Your task to perform on an android device: toggle improve location accuracy Image 0: 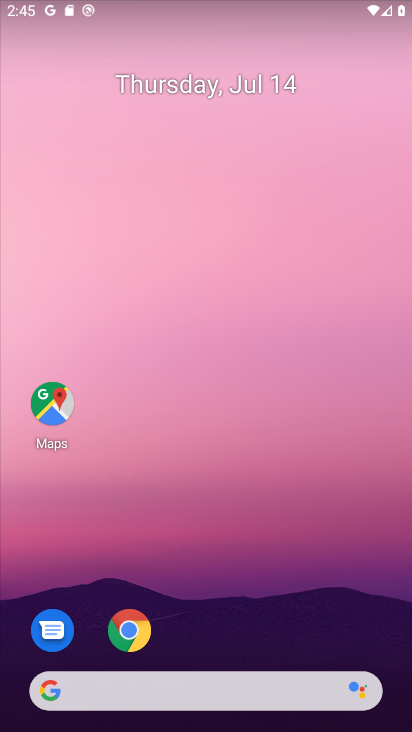
Step 0: drag from (227, 471) to (220, 256)
Your task to perform on an android device: toggle improve location accuracy Image 1: 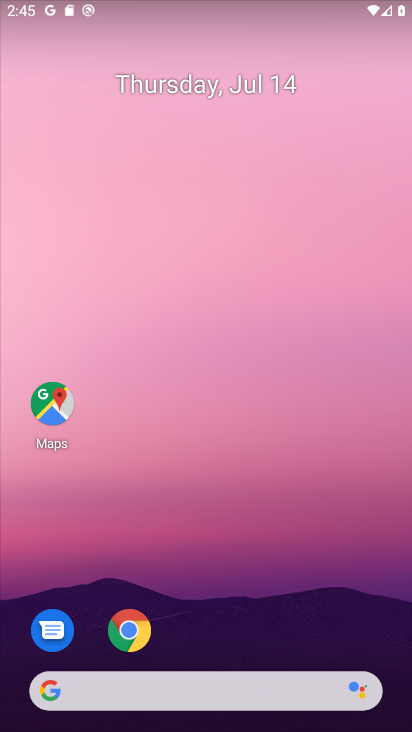
Step 1: drag from (244, 716) to (185, 203)
Your task to perform on an android device: toggle improve location accuracy Image 2: 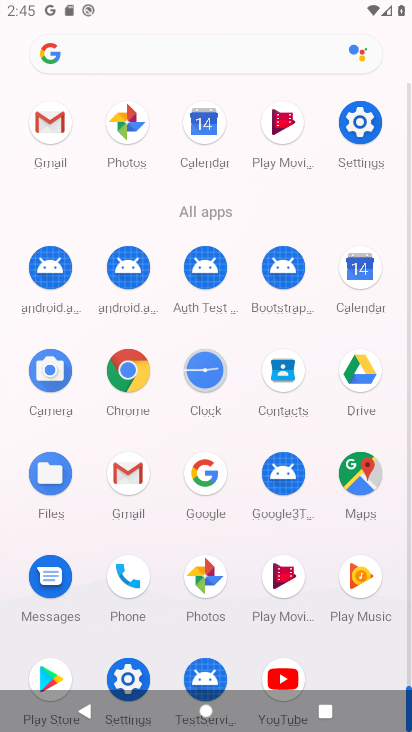
Step 2: drag from (246, 558) to (231, 253)
Your task to perform on an android device: toggle improve location accuracy Image 3: 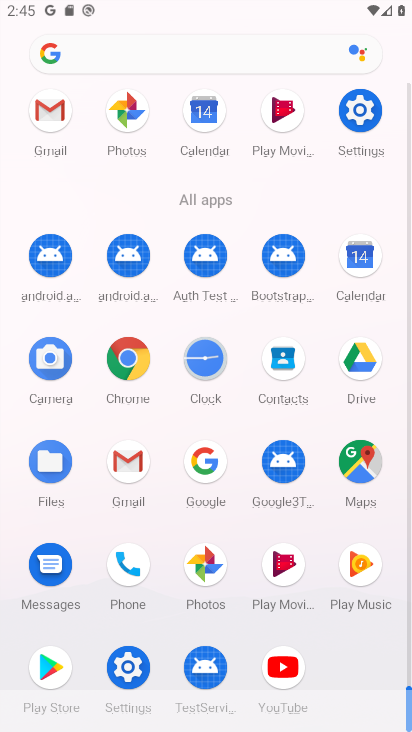
Step 3: click (369, 108)
Your task to perform on an android device: toggle improve location accuracy Image 4: 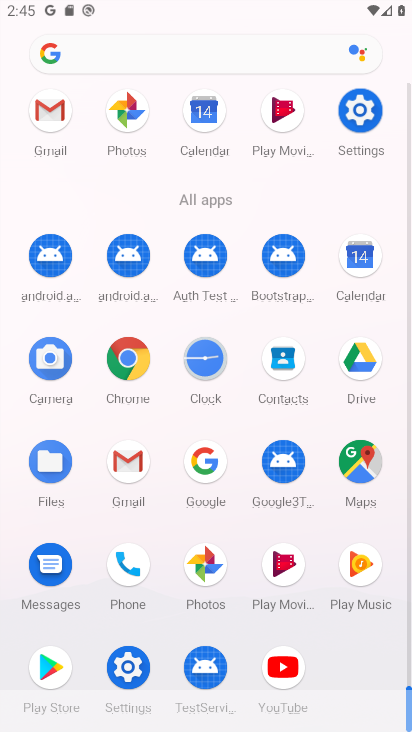
Step 4: click (369, 108)
Your task to perform on an android device: toggle improve location accuracy Image 5: 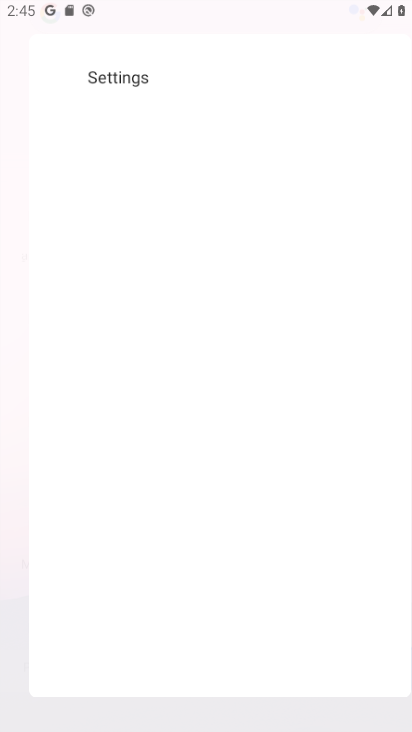
Step 5: click (368, 111)
Your task to perform on an android device: toggle improve location accuracy Image 6: 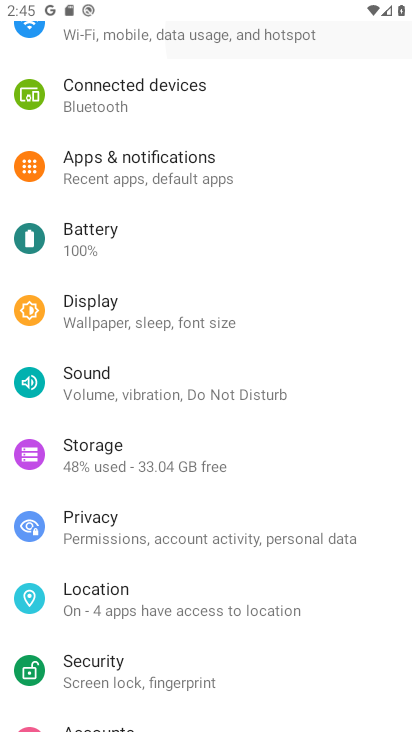
Step 6: click (359, 112)
Your task to perform on an android device: toggle improve location accuracy Image 7: 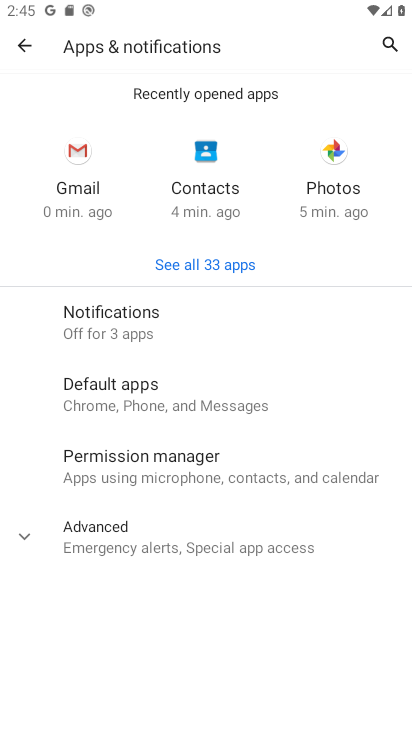
Step 7: click (26, 40)
Your task to perform on an android device: toggle improve location accuracy Image 8: 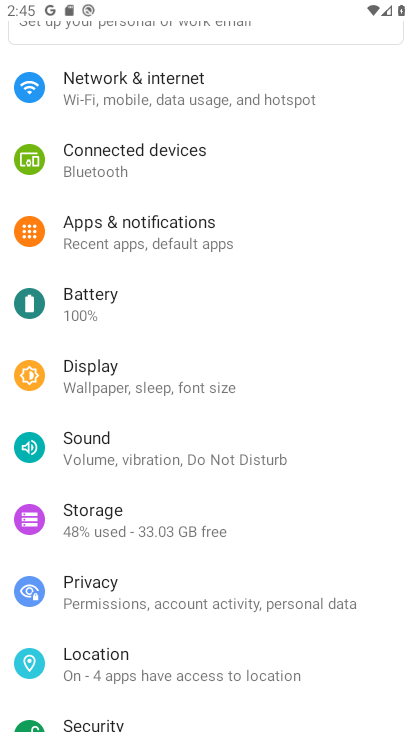
Step 8: click (144, 221)
Your task to perform on an android device: toggle improve location accuracy Image 9: 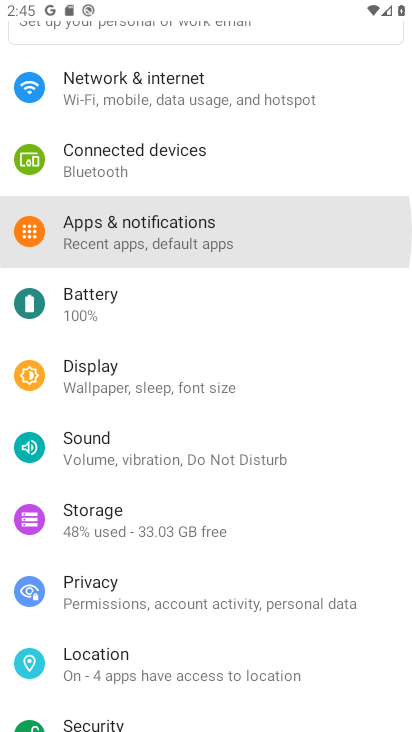
Step 9: click (144, 221)
Your task to perform on an android device: toggle improve location accuracy Image 10: 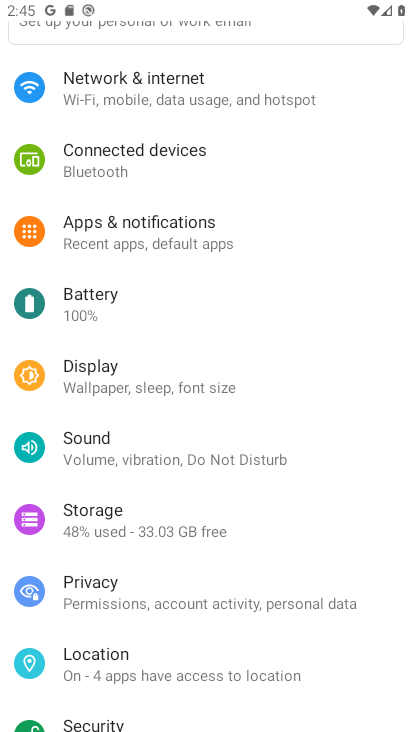
Step 10: click (145, 222)
Your task to perform on an android device: toggle improve location accuracy Image 11: 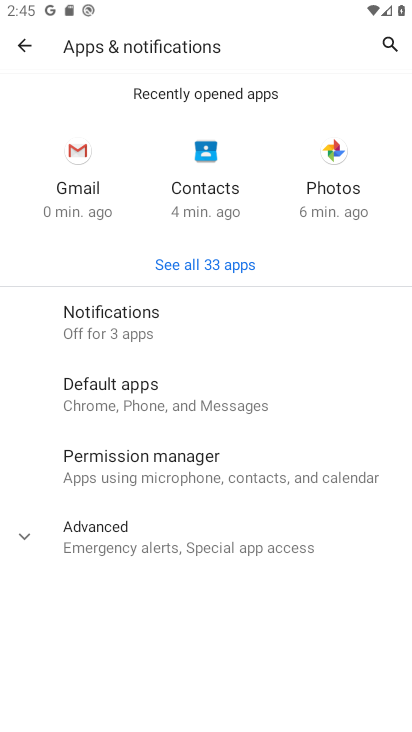
Step 11: click (15, 32)
Your task to perform on an android device: toggle improve location accuracy Image 12: 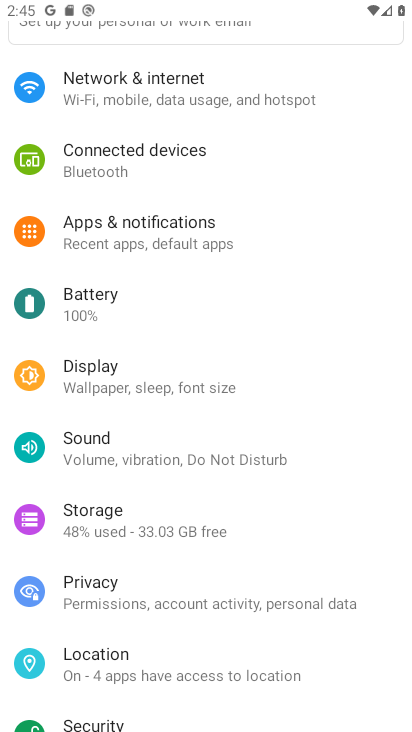
Step 12: click (106, 663)
Your task to perform on an android device: toggle improve location accuracy Image 13: 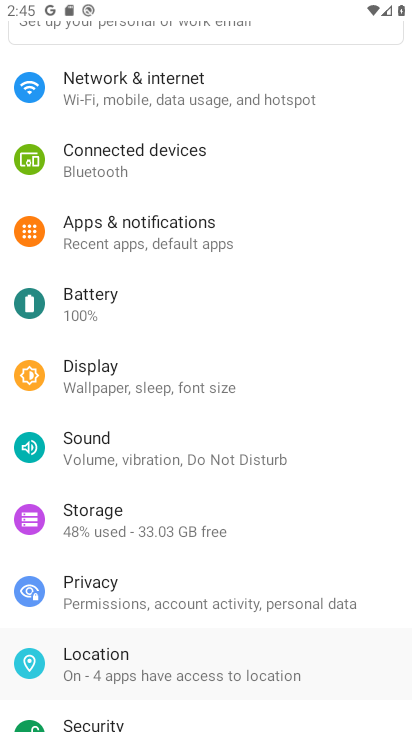
Step 13: click (106, 663)
Your task to perform on an android device: toggle improve location accuracy Image 14: 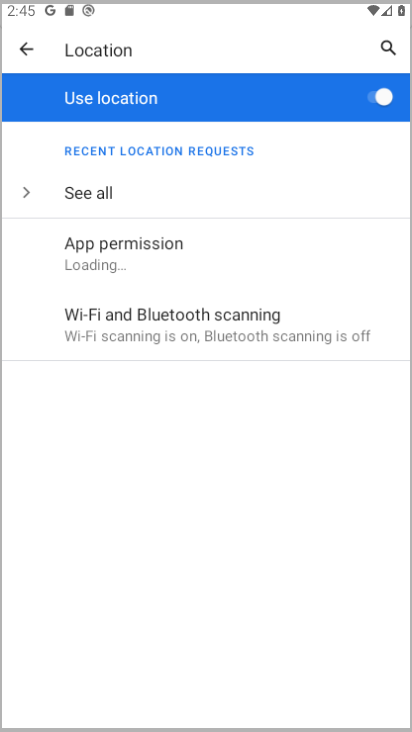
Step 14: click (107, 663)
Your task to perform on an android device: toggle improve location accuracy Image 15: 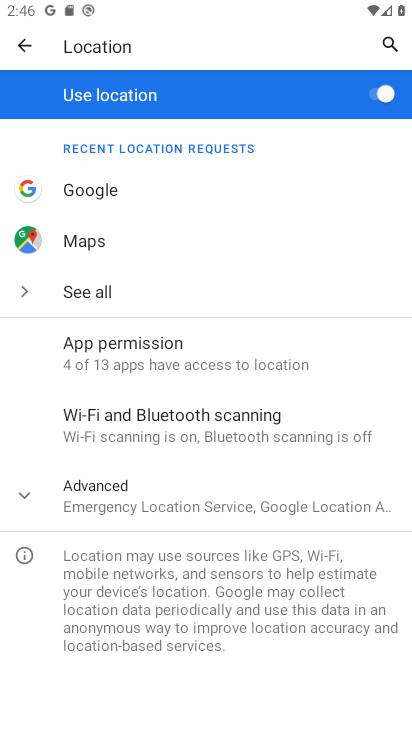
Step 15: click (114, 498)
Your task to perform on an android device: toggle improve location accuracy Image 16: 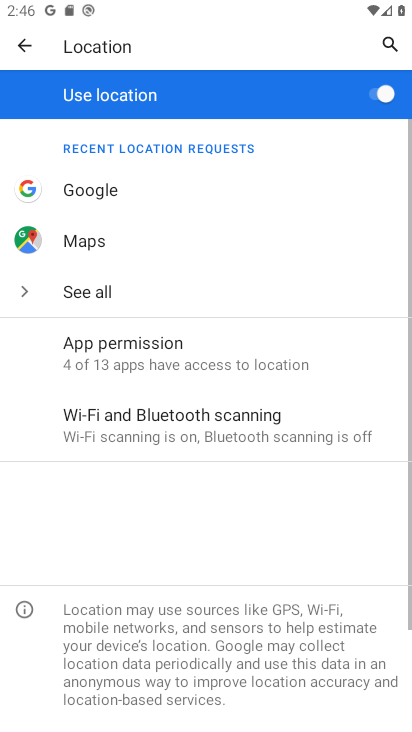
Step 16: click (113, 498)
Your task to perform on an android device: toggle improve location accuracy Image 17: 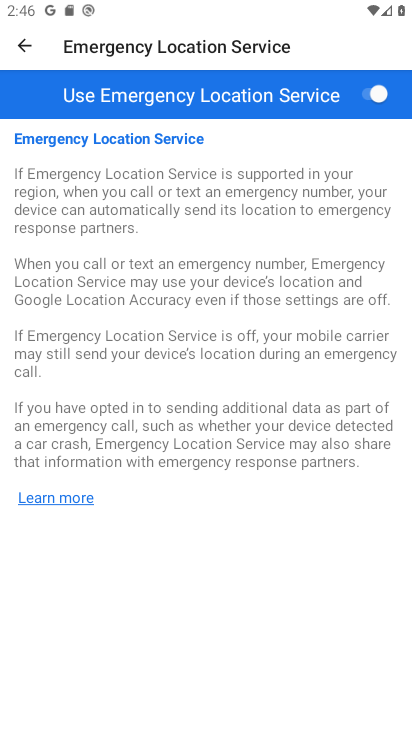
Step 17: click (26, 33)
Your task to perform on an android device: toggle improve location accuracy Image 18: 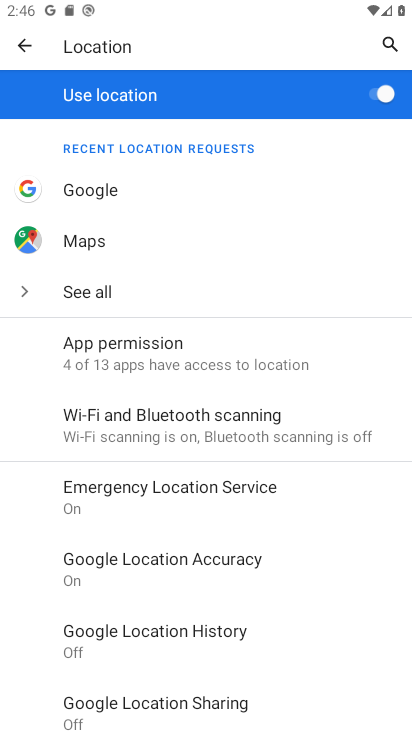
Step 18: click (101, 560)
Your task to perform on an android device: toggle improve location accuracy Image 19: 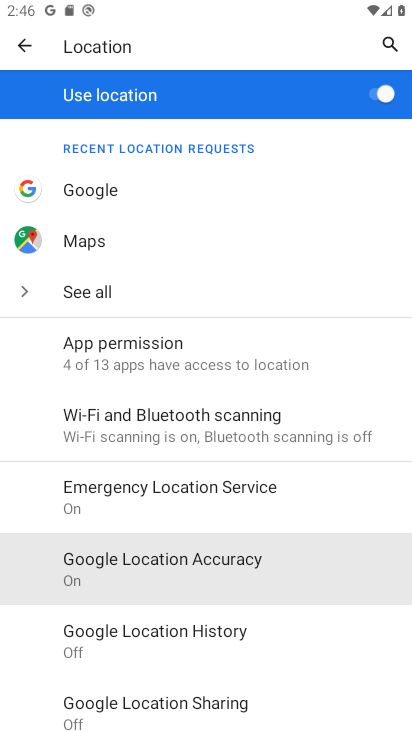
Step 19: click (101, 560)
Your task to perform on an android device: toggle improve location accuracy Image 20: 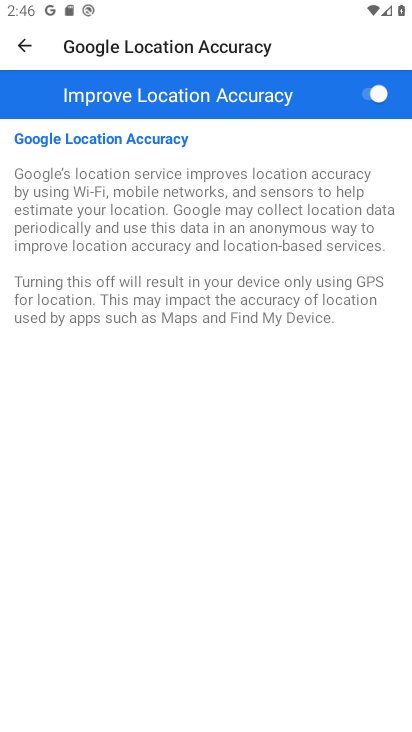
Step 20: click (369, 85)
Your task to perform on an android device: toggle improve location accuracy Image 21: 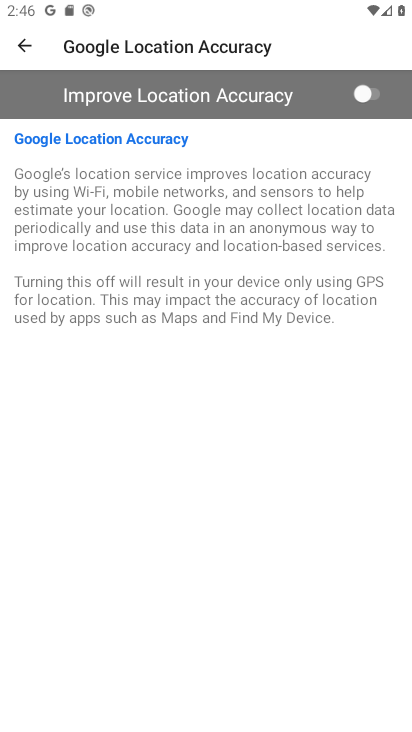
Step 21: task complete